Your task to perform on an android device: delete a single message in the gmail app Image 0: 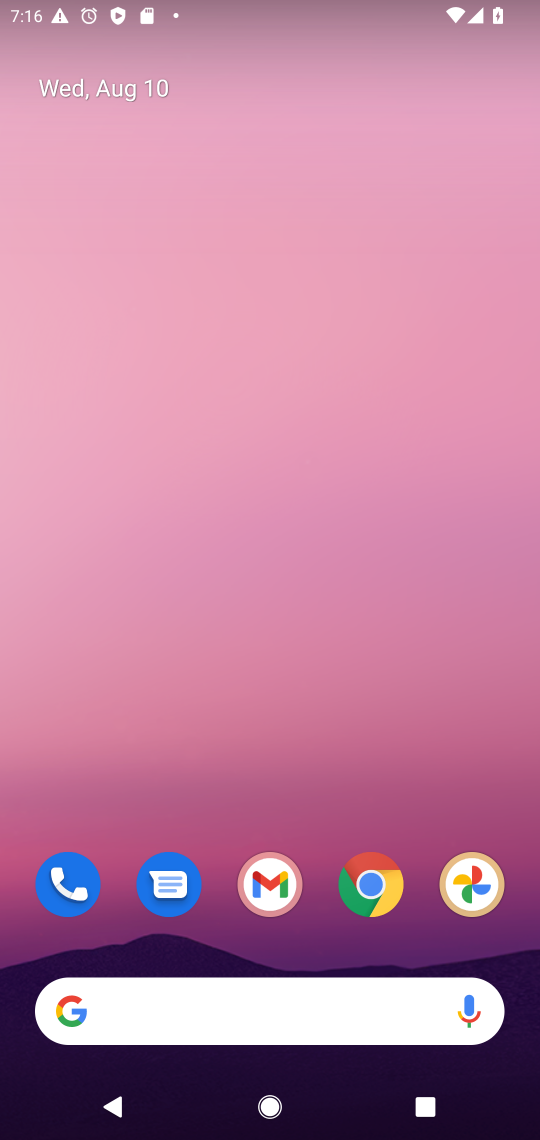
Step 0: click (271, 864)
Your task to perform on an android device: delete a single message in the gmail app Image 1: 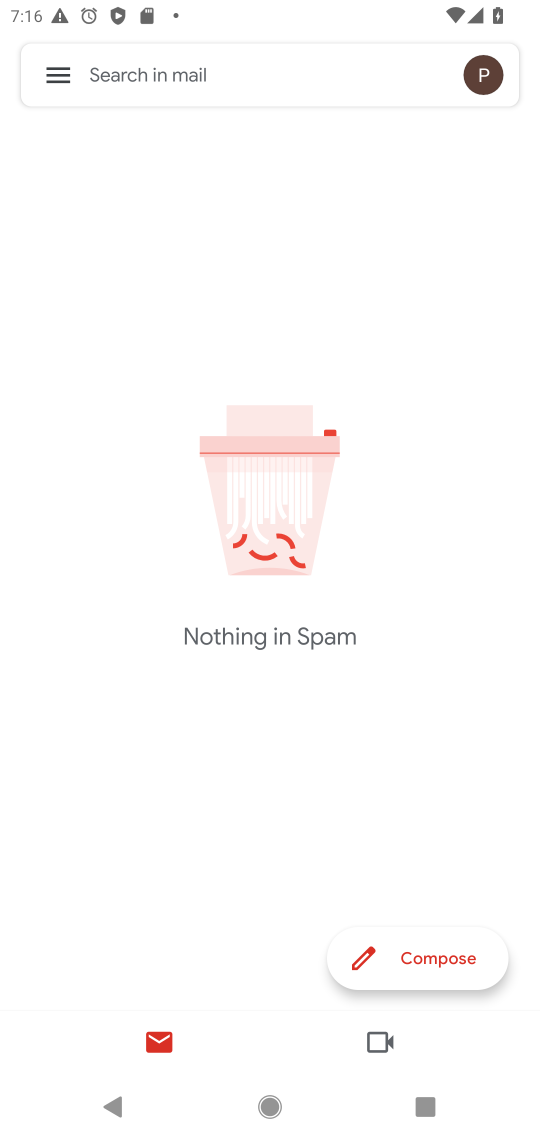
Step 1: click (60, 78)
Your task to perform on an android device: delete a single message in the gmail app Image 2: 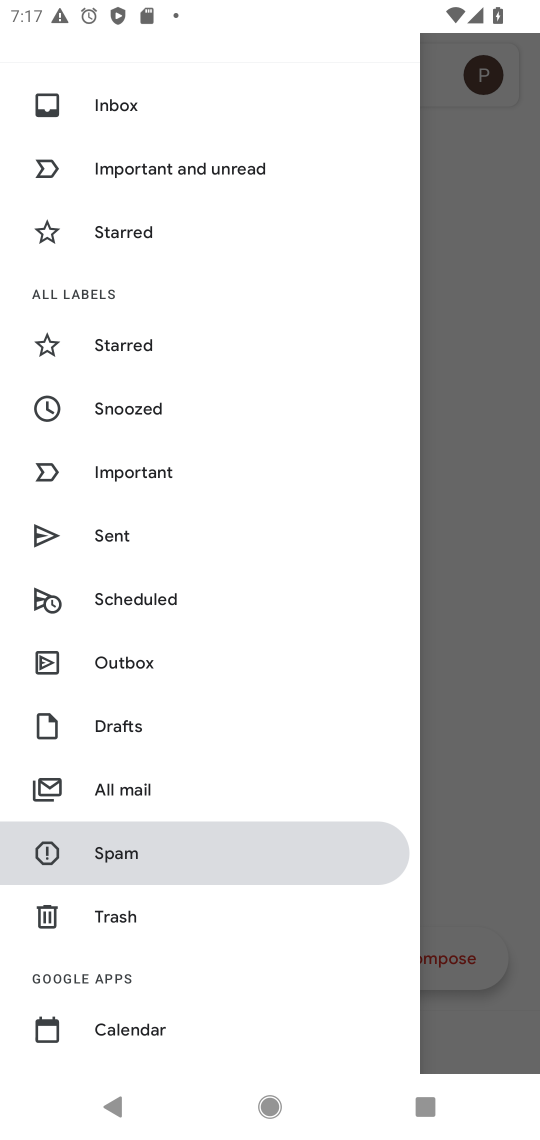
Step 2: click (119, 79)
Your task to perform on an android device: delete a single message in the gmail app Image 3: 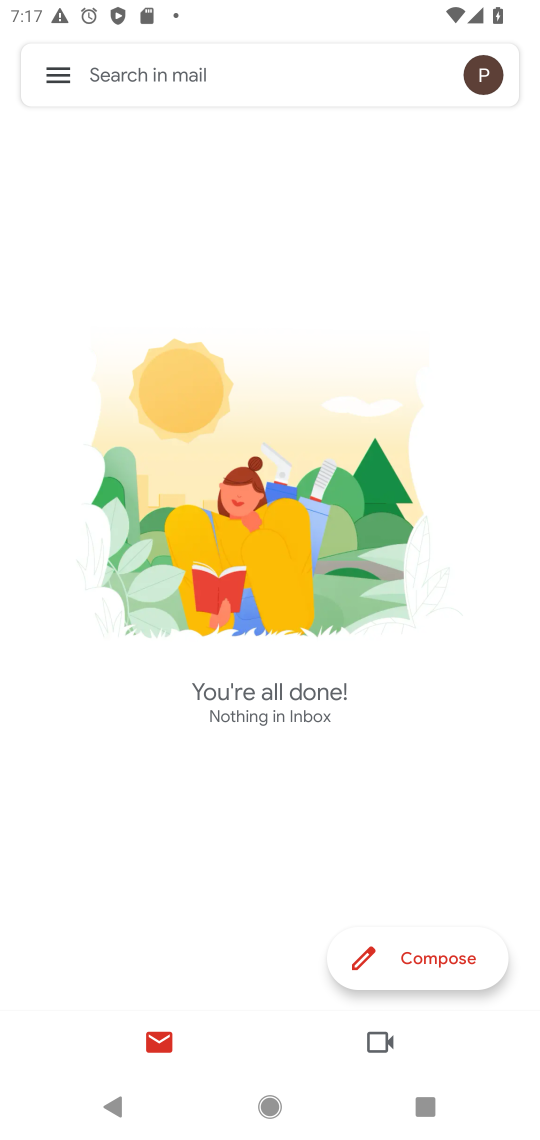
Step 3: task complete